Your task to perform on an android device: refresh tabs in the chrome app Image 0: 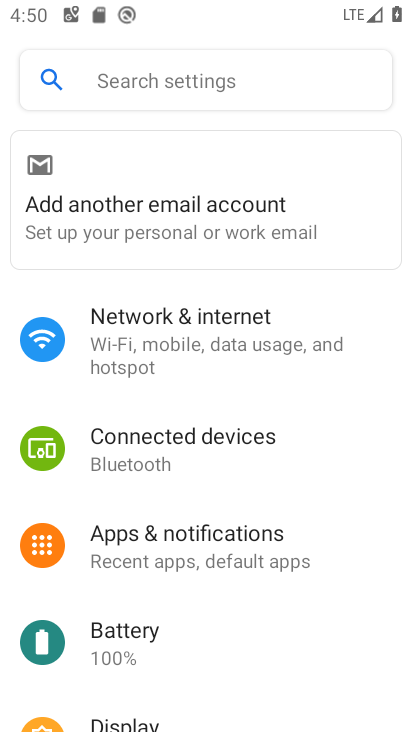
Step 0: press back button
Your task to perform on an android device: refresh tabs in the chrome app Image 1: 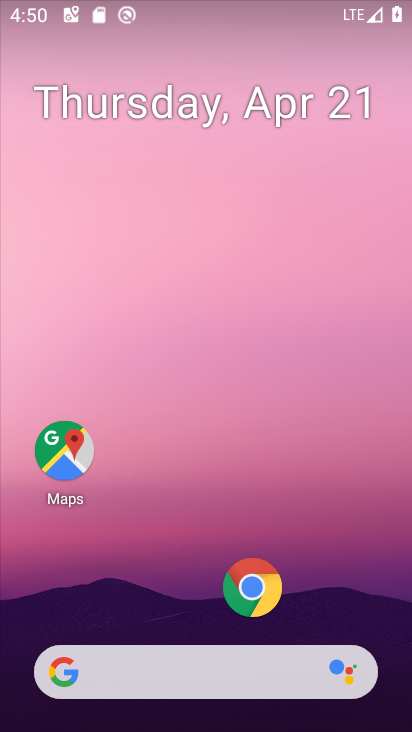
Step 1: click (274, 599)
Your task to perform on an android device: refresh tabs in the chrome app Image 2: 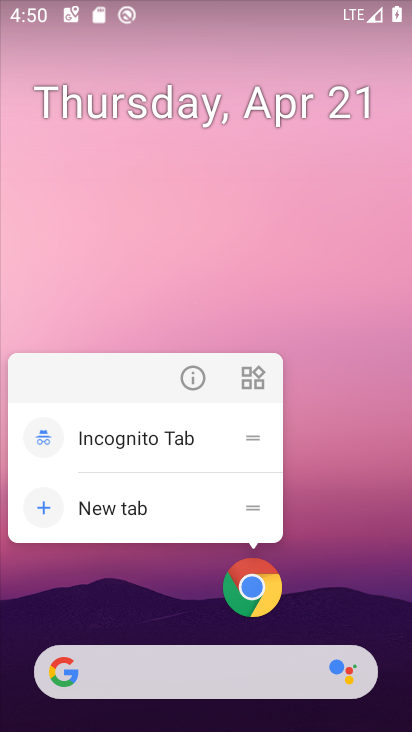
Step 2: click (264, 591)
Your task to perform on an android device: refresh tabs in the chrome app Image 3: 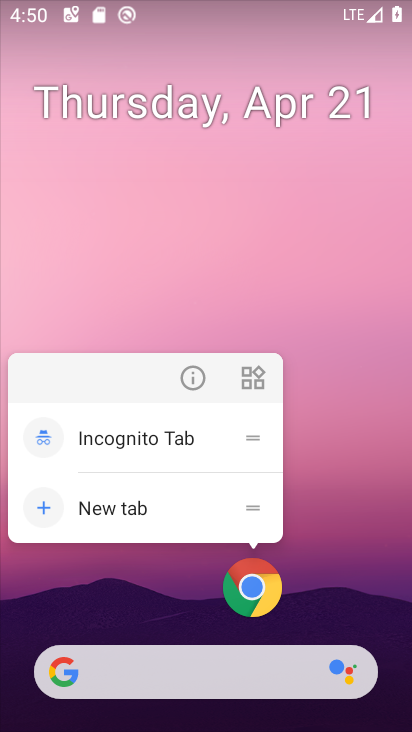
Step 3: click (253, 591)
Your task to perform on an android device: refresh tabs in the chrome app Image 4: 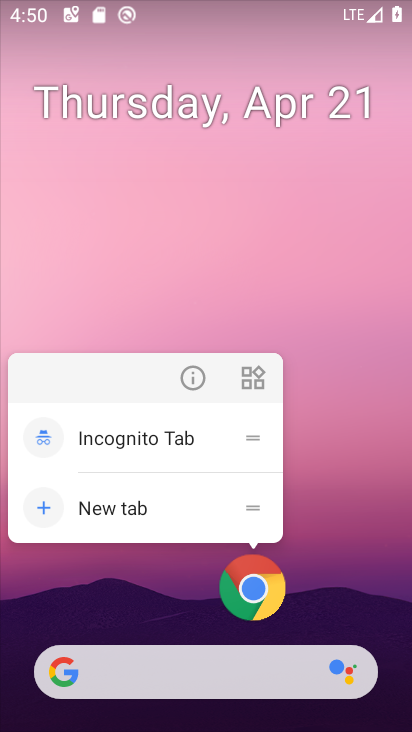
Step 4: click (259, 596)
Your task to perform on an android device: refresh tabs in the chrome app Image 5: 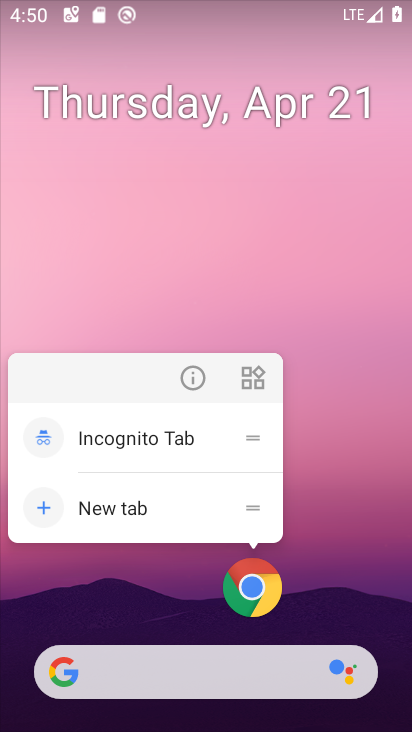
Step 5: click (271, 578)
Your task to perform on an android device: refresh tabs in the chrome app Image 6: 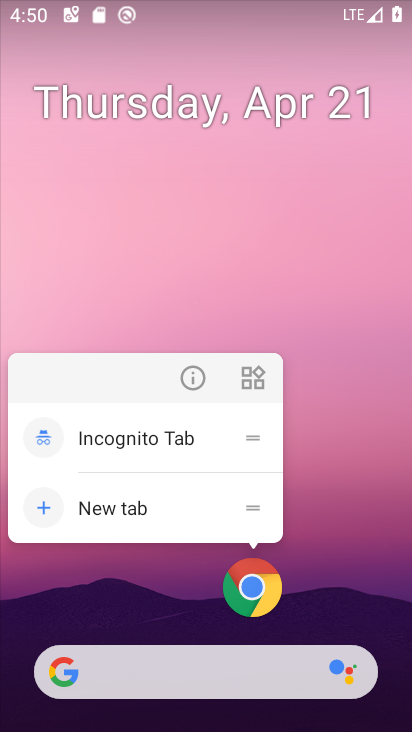
Step 6: click (268, 580)
Your task to perform on an android device: refresh tabs in the chrome app Image 7: 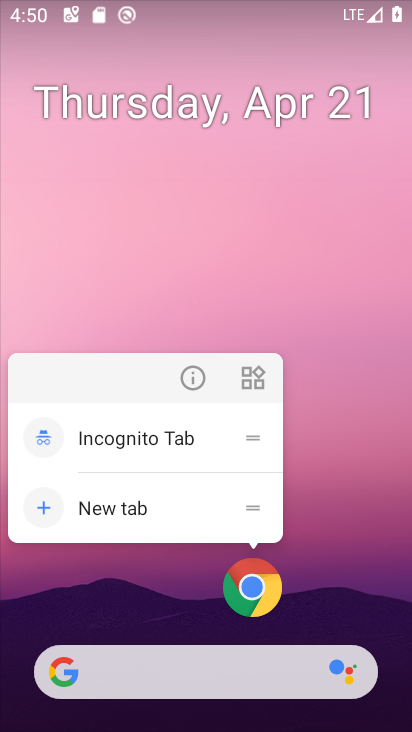
Step 7: click (256, 600)
Your task to perform on an android device: refresh tabs in the chrome app Image 8: 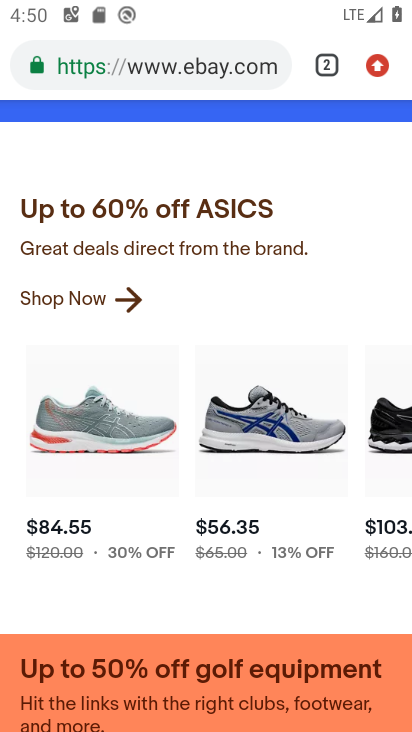
Step 8: click (370, 65)
Your task to perform on an android device: refresh tabs in the chrome app Image 9: 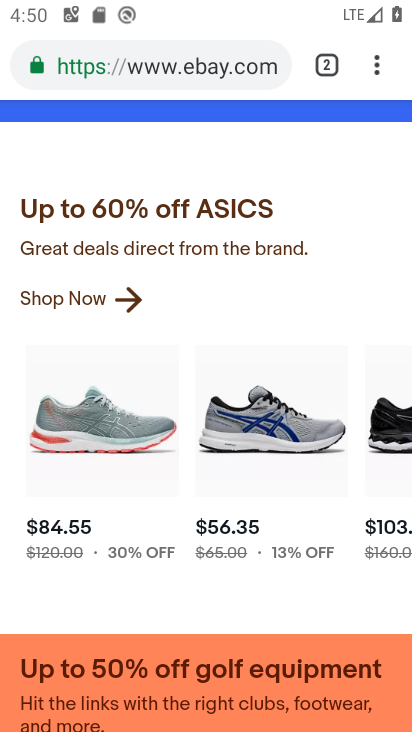
Step 9: click (370, 65)
Your task to perform on an android device: refresh tabs in the chrome app Image 10: 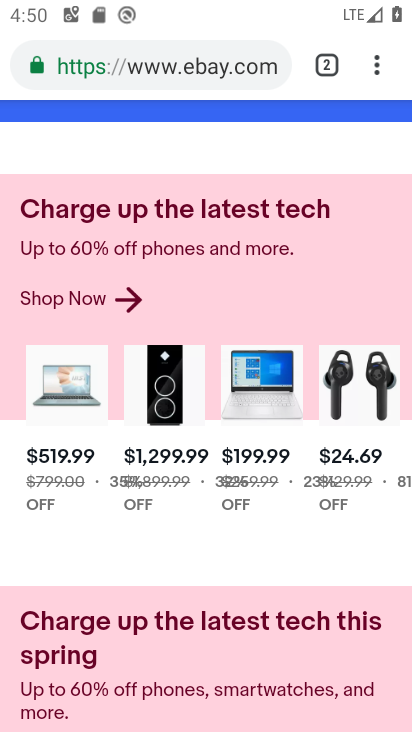
Step 10: task complete